Your task to perform on an android device: refresh tabs in the chrome app Image 0: 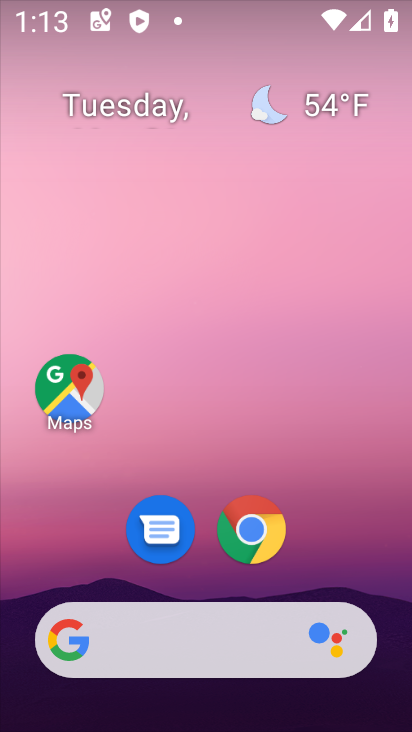
Step 0: click (254, 525)
Your task to perform on an android device: refresh tabs in the chrome app Image 1: 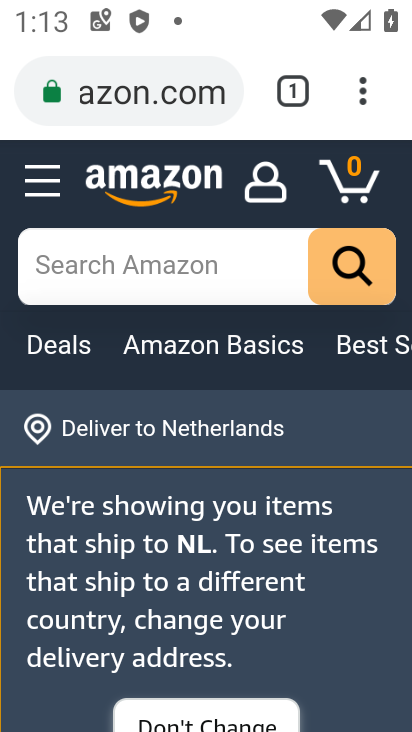
Step 1: click (364, 87)
Your task to perform on an android device: refresh tabs in the chrome app Image 2: 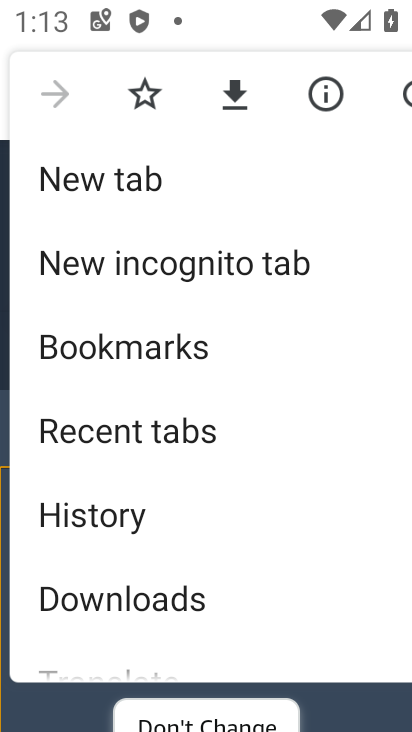
Step 2: click (405, 98)
Your task to perform on an android device: refresh tabs in the chrome app Image 3: 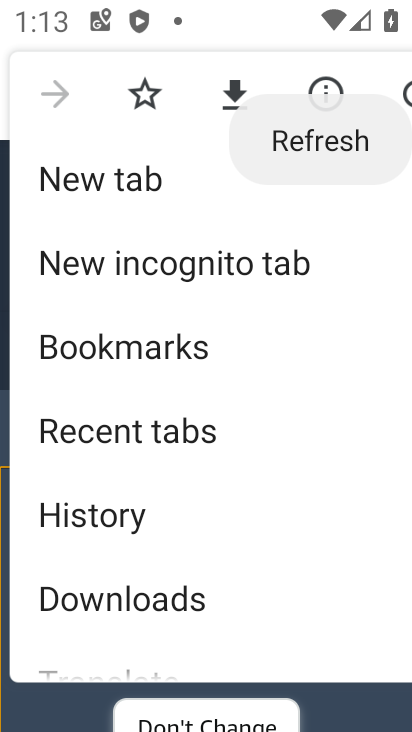
Step 3: click (405, 98)
Your task to perform on an android device: refresh tabs in the chrome app Image 4: 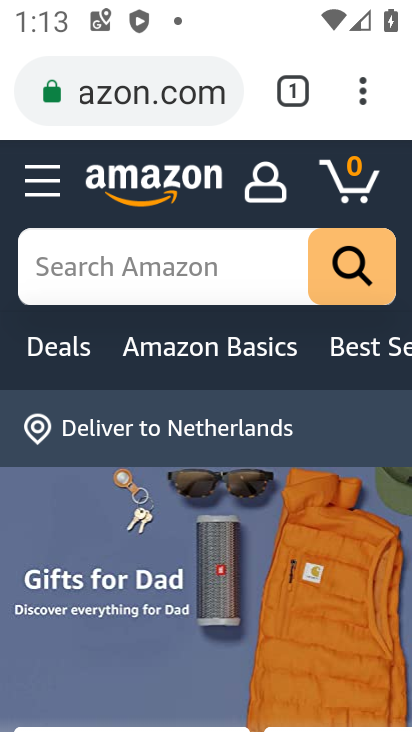
Step 4: task complete